Your task to perform on an android device: Search for coffee table on Crate & Barrel Image 0: 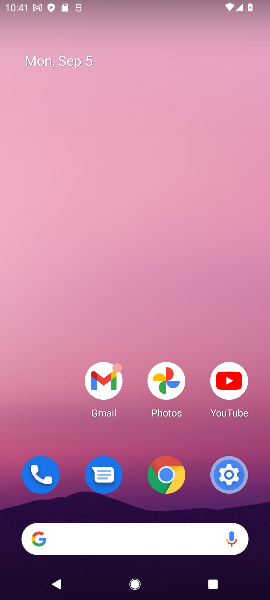
Step 0: click (102, 533)
Your task to perform on an android device: Search for coffee table on Crate & Barrel Image 1: 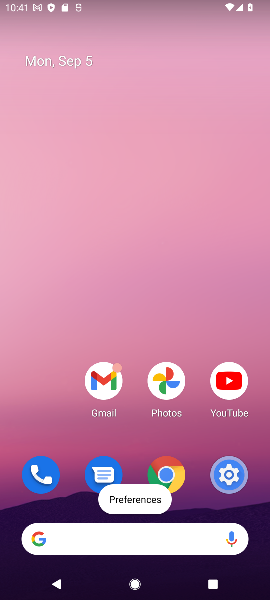
Step 1: click (165, 526)
Your task to perform on an android device: Search for coffee table on Crate & Barrel Image 2: 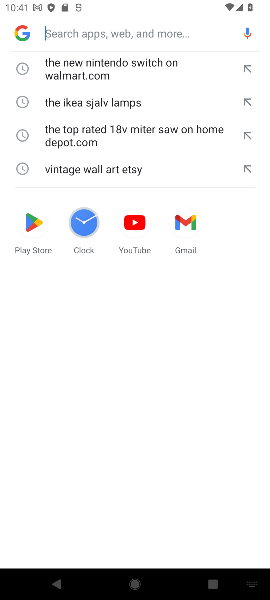
Step 2: type "coffee table on Crate & Barrel"
Your task to perform on an android device: Search for coffee table on Crate & Barrel Image 3: 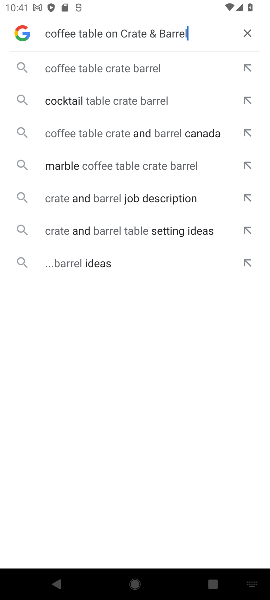
Step 3: click (109, 71)
Your task to perform on an android device: Search for coffee table on Crate & Barrel Image 4: 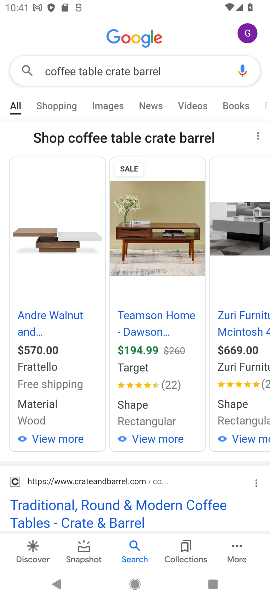
Step 4: click (164, 179)
Your task to perform on an android device: Search for coffee table on Crate & Barrel Image 5: 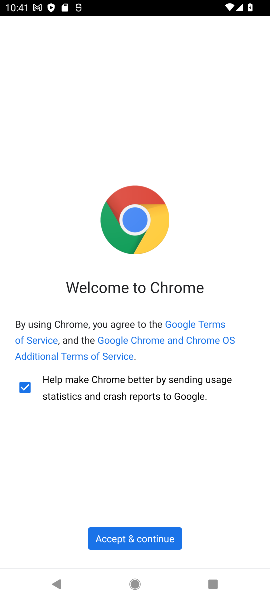
Step 5: task complete